Your task to perform on an android device: turn off notifications settings in the gmail app Image 0: 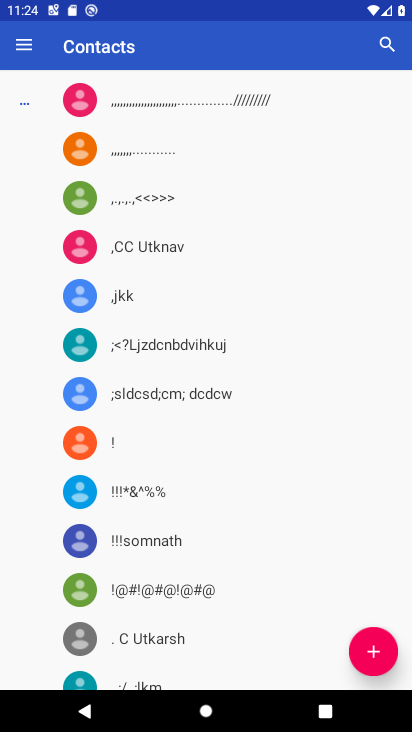
Step 0: press home button
Your task to perform on an android device: turn off notifications settings in the gmail app Image 1: 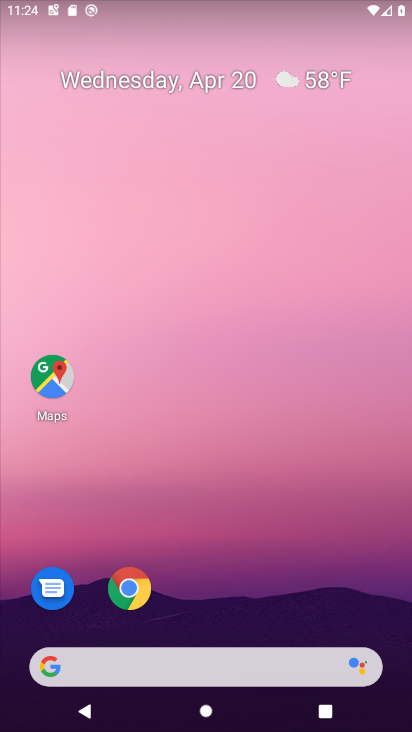
Step 1: drag from (286, 607) to (370, 53)
Your task to perform on an android device: turn off notifications settings in the gmail app Image 2: 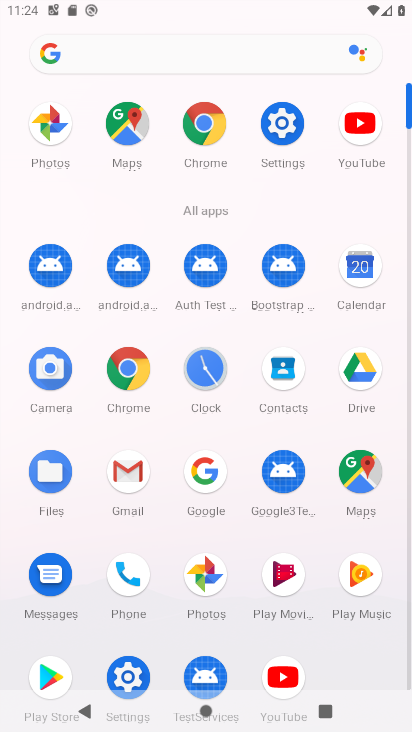
Step 2: click (127, 473)
Your task to perform on an android device: turn off notifications settings in the gmail app Image 3: 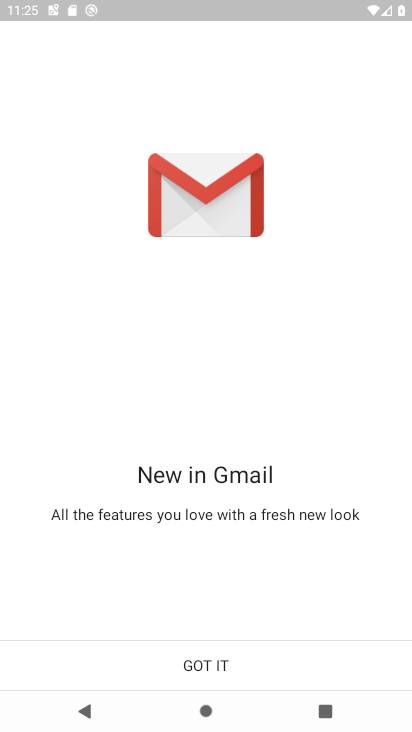
Step 3: click (288, 678)
Your task to perform on an android device: turn off notifications settings in the gmail app Image 4: 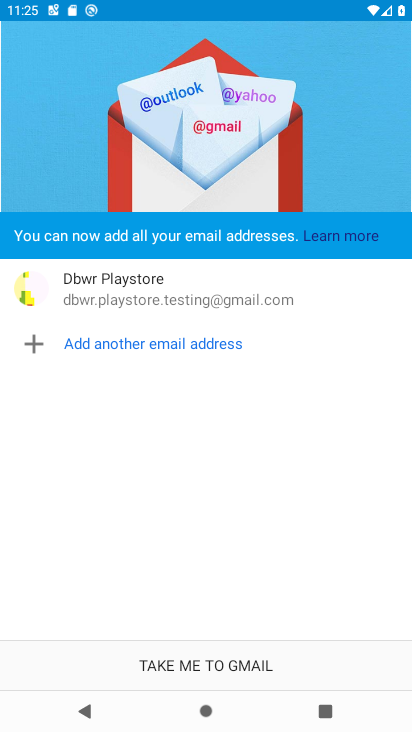
Step 4: click (253, 660)
Your task to perform on an android device: turn off notifications settings in the gmail app Image 5: 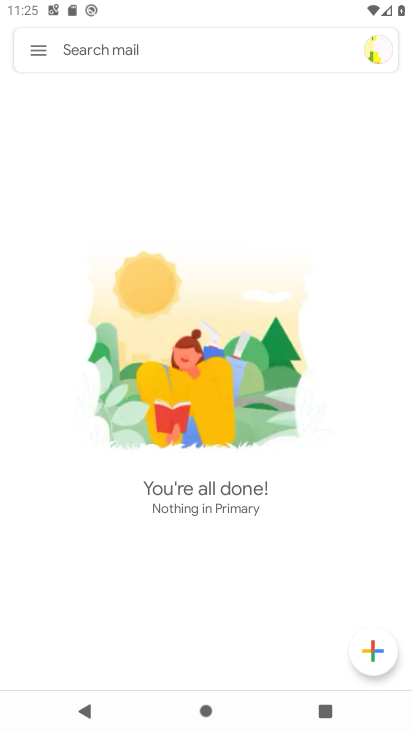
Step 5: click (48, 38)
Your task to perform on an android device: turn off notifications settings in the gmail app Image 6: 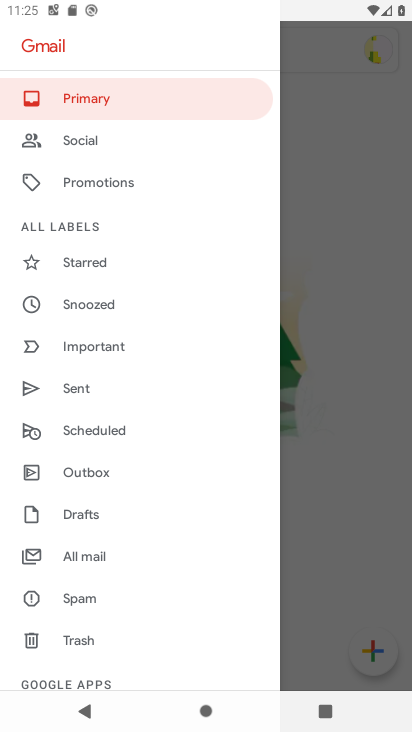
Step 6: drag from (93, 639) to (196, 171)
Your task to perform on an android device: turn off notifications settings in the gmail app Image 7: 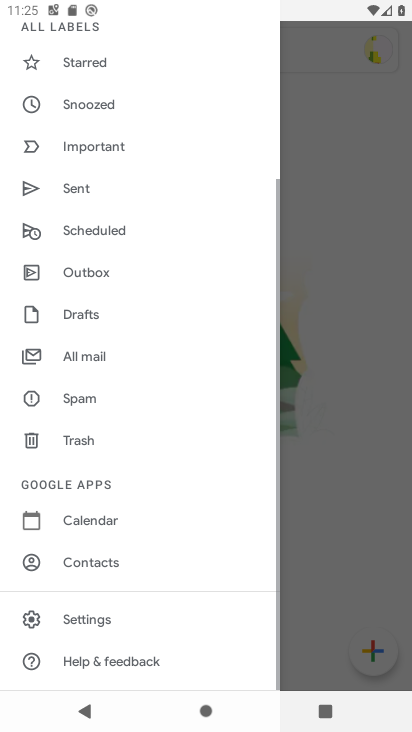
Step 7: click (121, 614)
Your task to perform on an android device: turn off notifications settings in the gmail app Image 8: 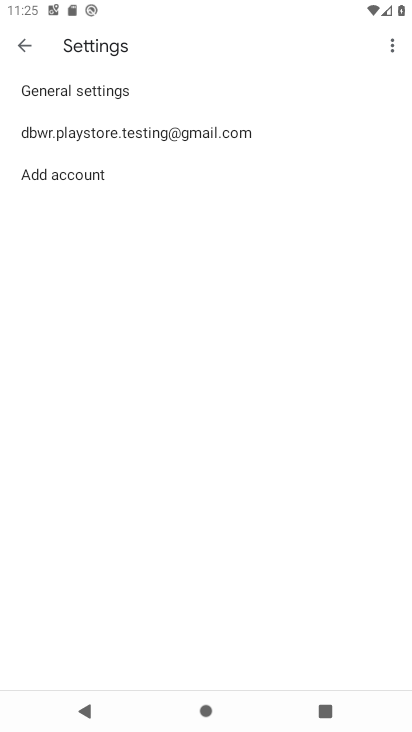
Step 8: click (231, 138)
Your task to perform on an android device: turn off notifications settings in the gmail app Image 9: 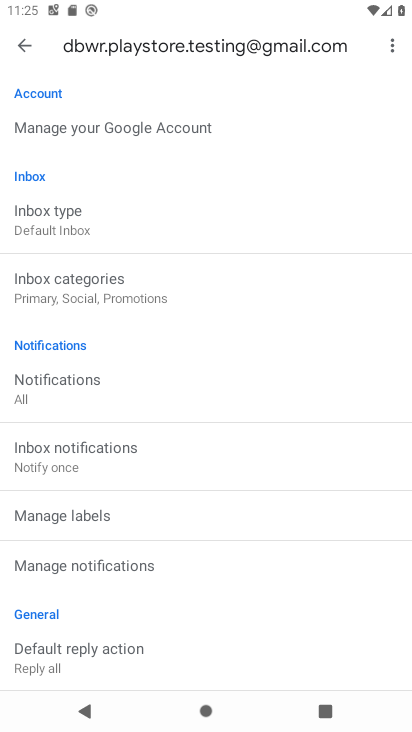
Step 9: click (93, 373)
Your task to perform on an android device: turn off notifications settings in the gmail app Image 10: 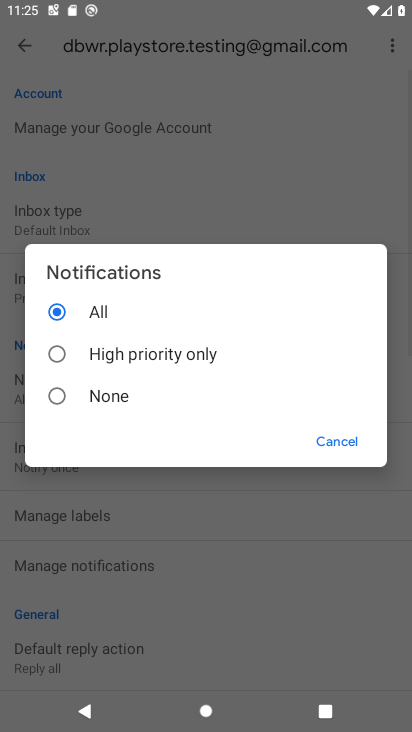
Step 10: click (115, 393)
Your task to perform on an android device: turn off notifications settings in the gmail app Image 11: 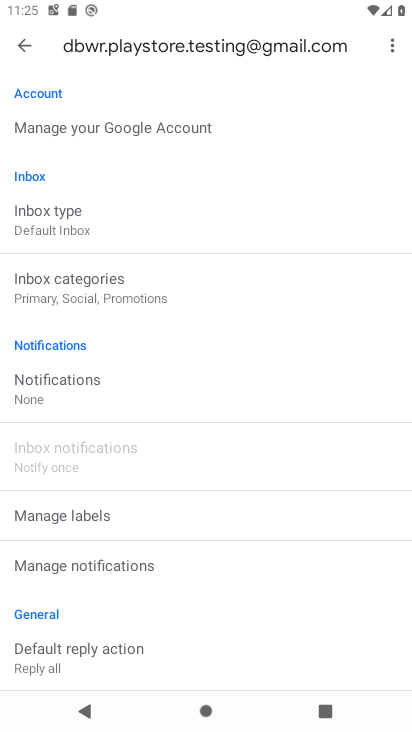
Step 11: task complete